Your task to perform on an android device: Open maps Image 0: 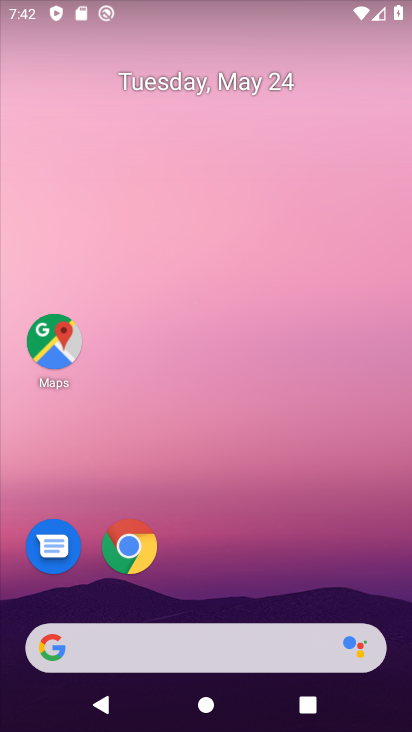
Step 0: click (55, 345)
Your task to perform on an android device: Open maps Image 1: 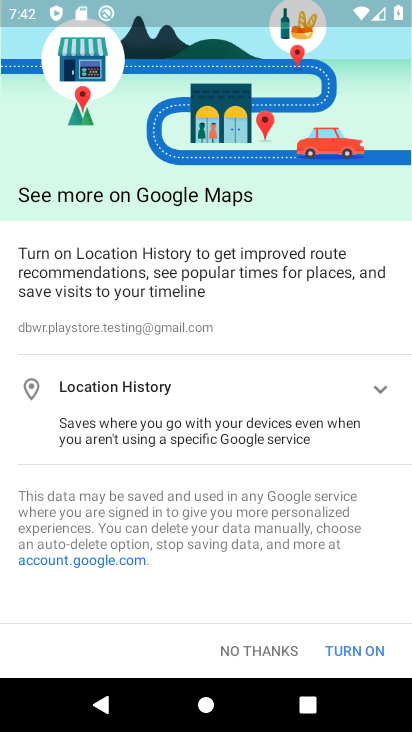
Step 1: click (264, 645)
Your task to perform on an android device: Open maps Image 2: 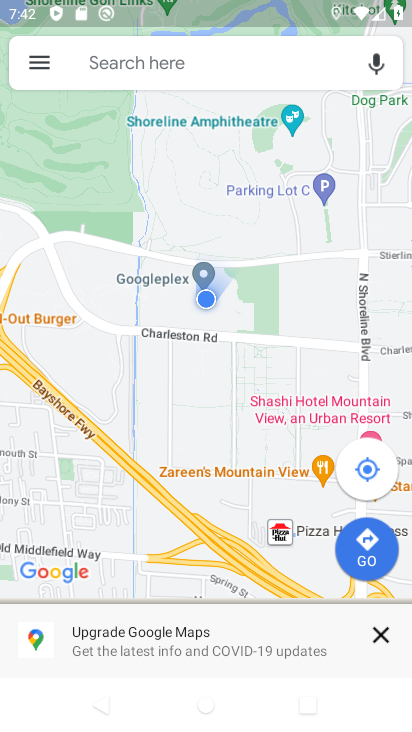
Step 2: task complete